Your task to perform on an android device: turn off location Image 0: 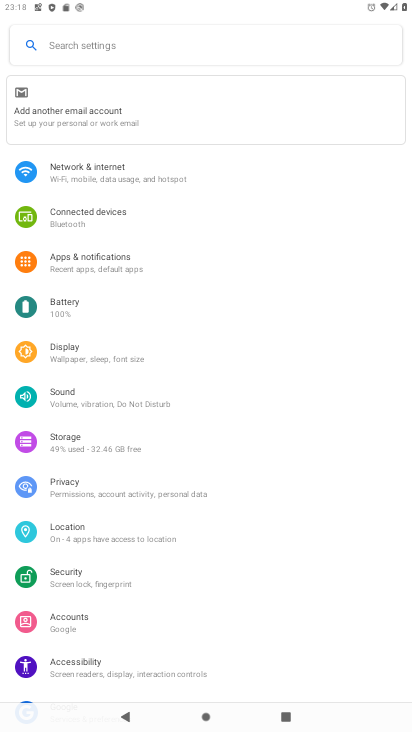
Step 0: click (95, 535)
Your task to perform on an android device: turn off location Image 1: 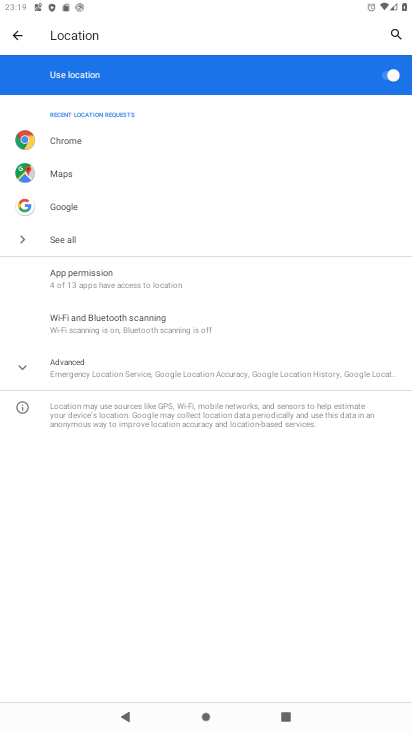
Step 1: click (85, 365)
Your task to perform on an android device: turn off location Image 2: 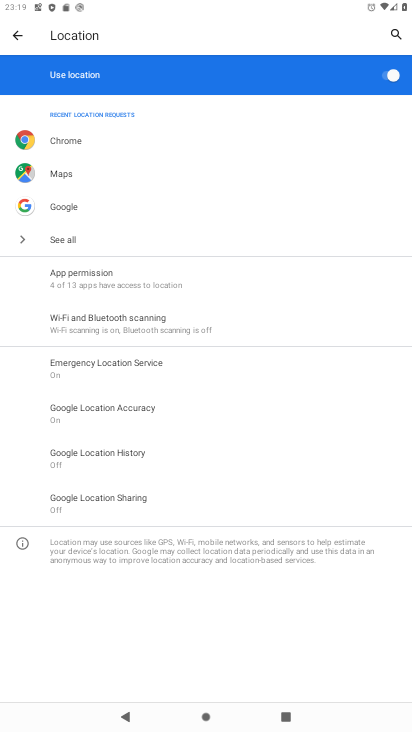
Step 2: click (390, 72)
Your task to perform on an android device: turn off location Image 3: 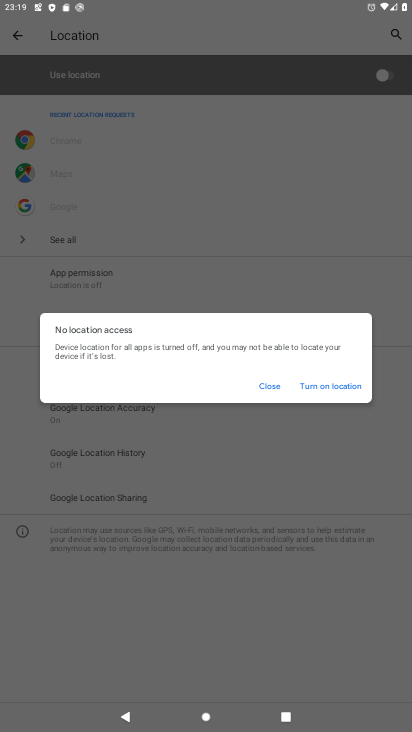
Step 3: drag from (313, 384) to (396, 124)
Your task to perform on an android device: turn off location Image 4: 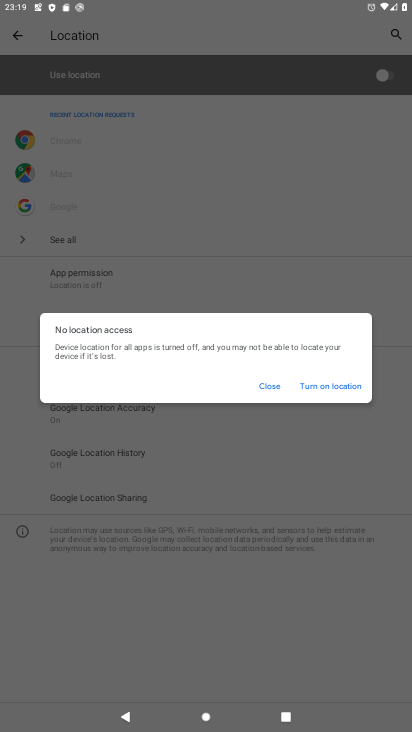
Step 4: click (261, 391)
Your task to perform on an android device: turn off location Image 5: 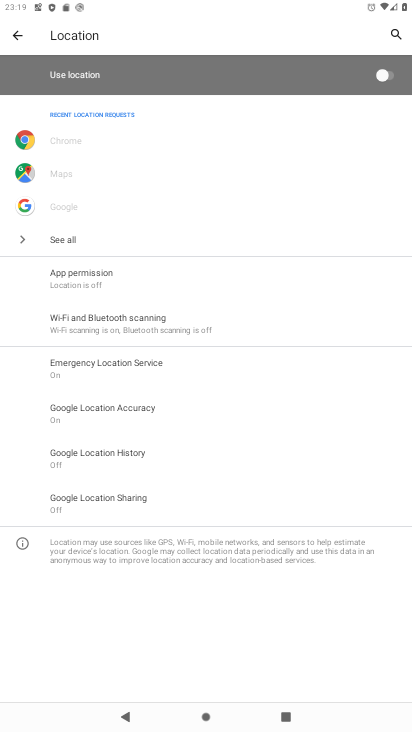
Step 5: task complete